Your task to perform on an android device: set the timer Image 0: 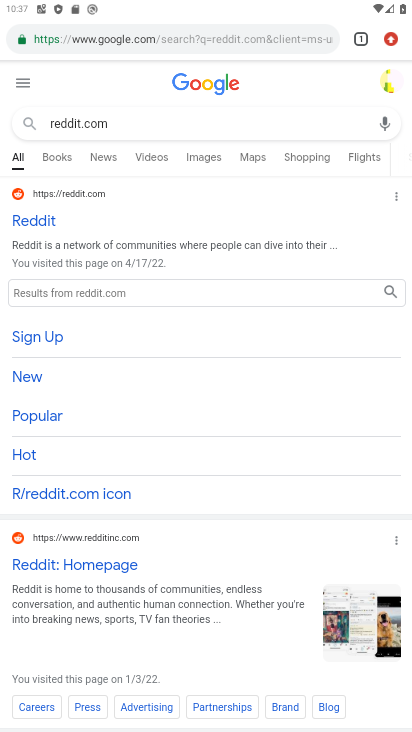
Step 0: press home button
Your task to perform on an android device: set the timer Image 1: 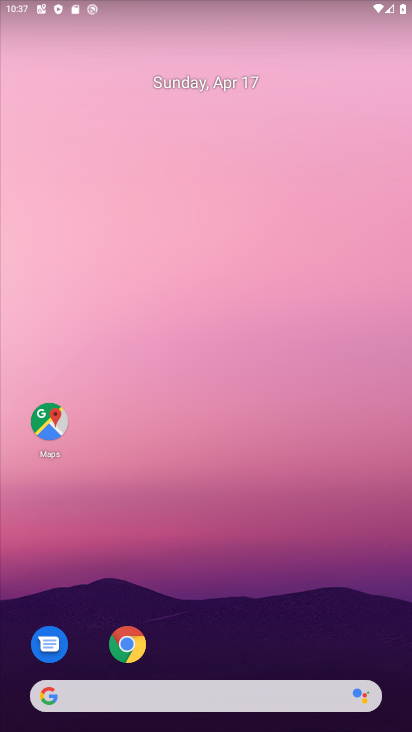
Step 1: drag from (217, 627) to (384, 13)
Your task to perform on an android device: set the timer Image 2: 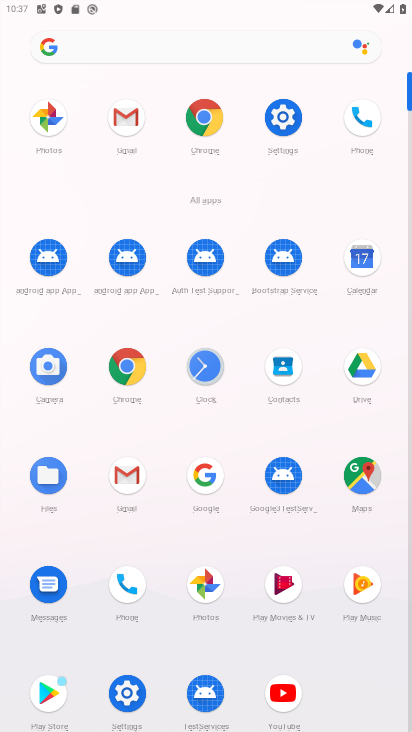
Step 2: click (208, 378)
Your task to perform on an android device: set the timer Image 3: 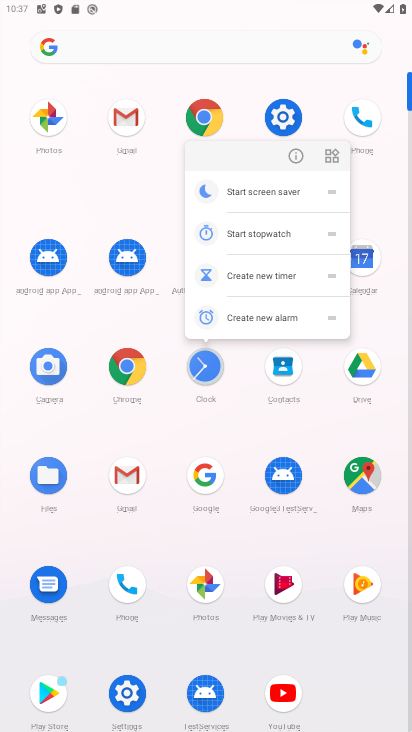
Step 3: click (203, 376)
Your task to perform on an android device: set the timer Image 4: 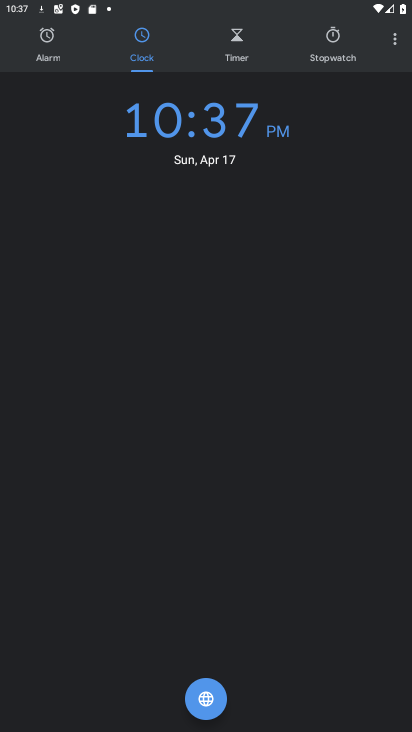
Step 4: click (235, 42)
Your task to perform on an android device: set the timer Image 5: 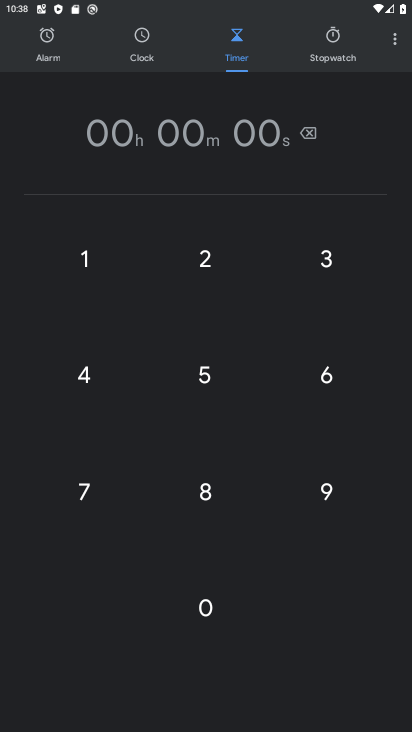
Step 5: click (203, 496)
Your task to perform on an android device: set the timer Image 6: 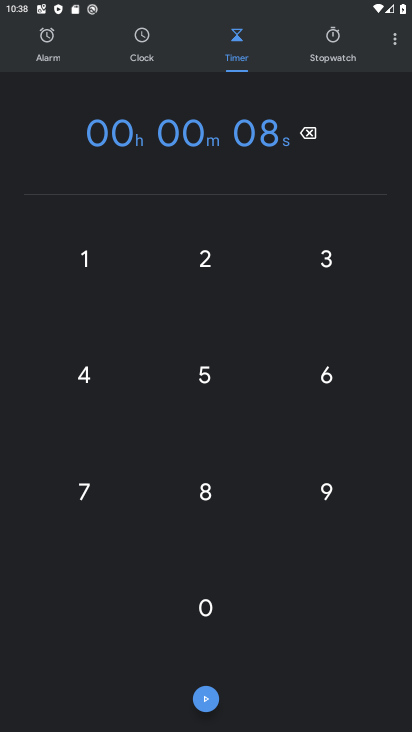
Step 6: click (89, 373)
Your task to perform on an android device: set the timer Image 7: 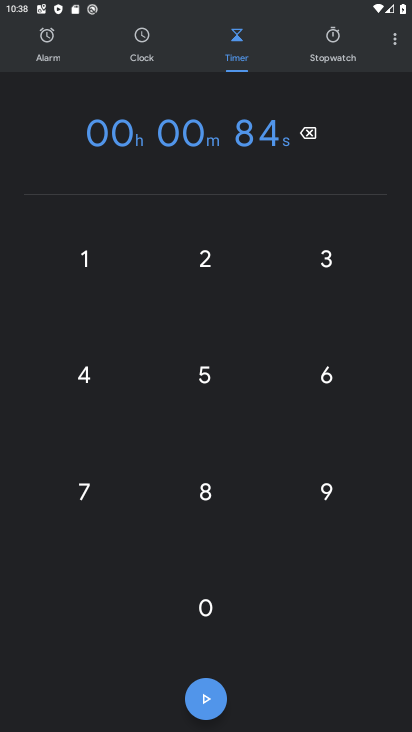
Step 7: click (199, 380)
Your task to perform on an android device: set the timer Image 8: 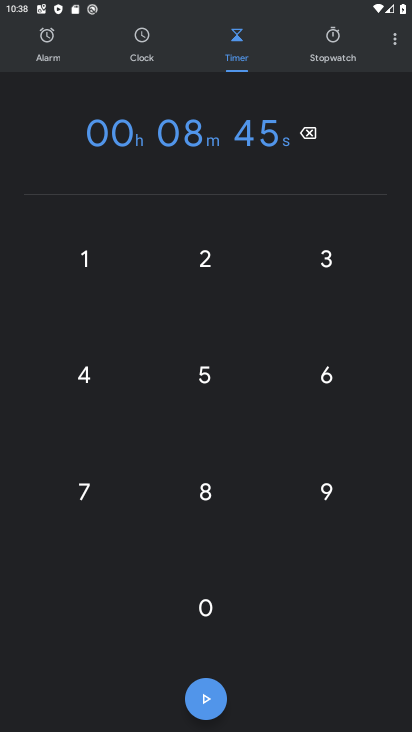
Step 8: click (209, 695)
Your task to perform on an android device: set the timer Image 9: 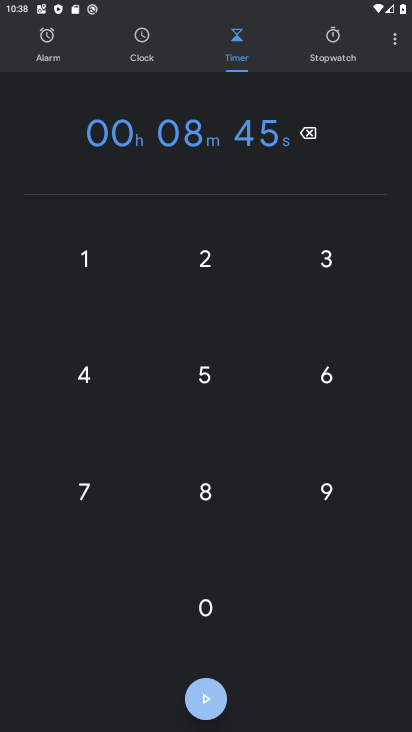
Step 9: task complete